Your task to perform on an android device: Check the weather Image 0: 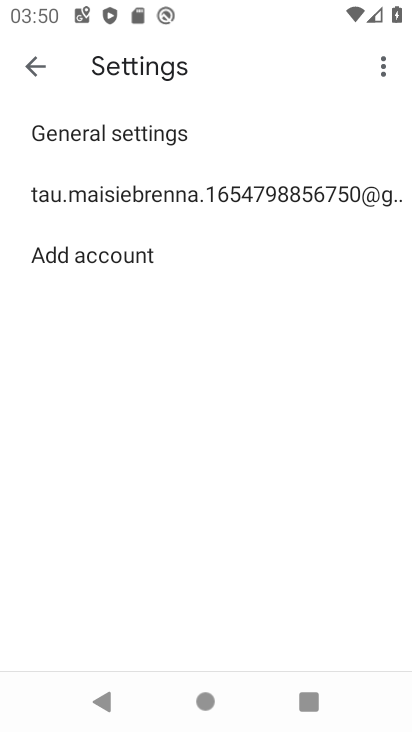
Step 0: press home button
Your task to perform on an android device: Check the weather Image 1: 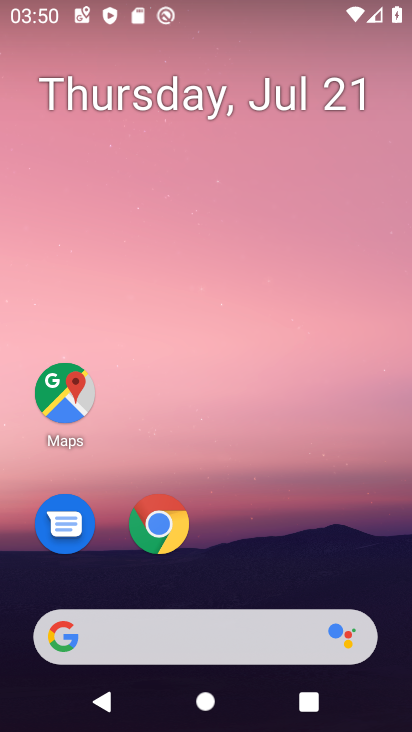
Step 1: click (234, 641)
Your task to perform on an android device: Check the weather Image 2: 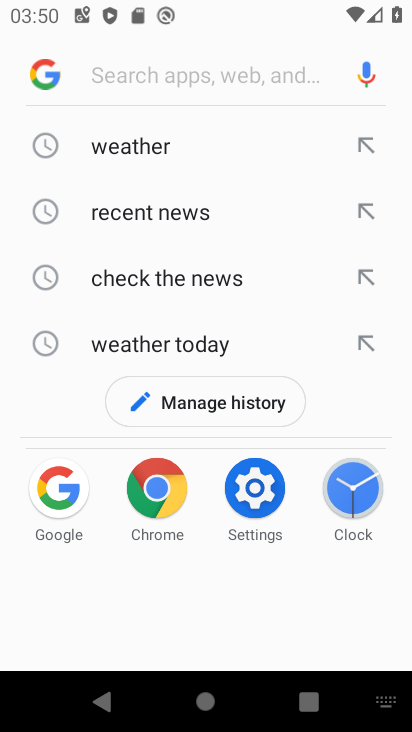
Step 2: click (142, 149)
Your task to perform on an android device: Check the weather Image 3: 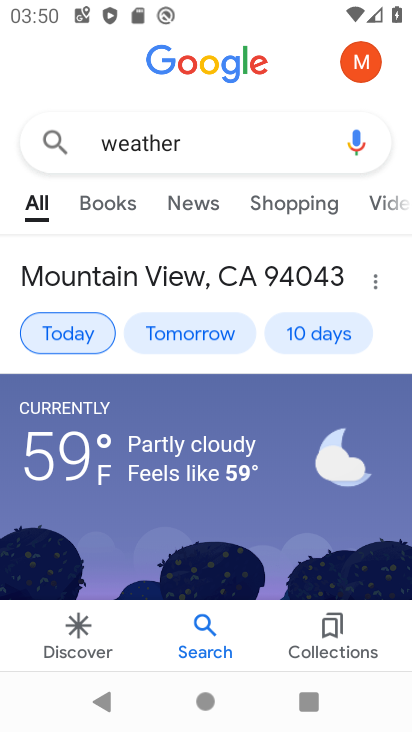
Step 3: click (76, 332)
Your task to perform on an android device: Check the weather Image 4: 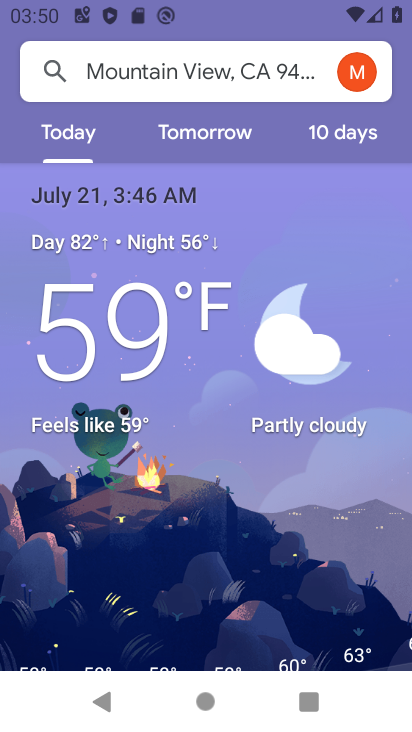
Step 4: task complete